Your task to perform on an android device: turn off smart reply in the gmail app Image 0: 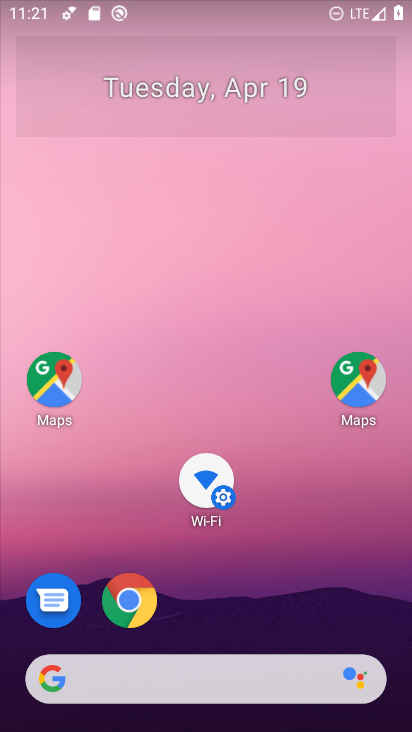
Step 0: drag from (292, 640) to (300, 72)
Your task to perform on an android device: turn off smart reply in the gmail app Image 1: 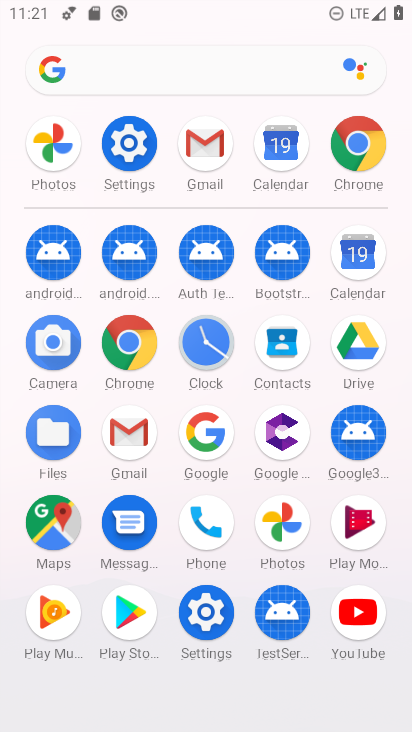
Step 1: click (113, 444)
Your task to perform on an android device: turn off smart reply in the gmail app Image 2: 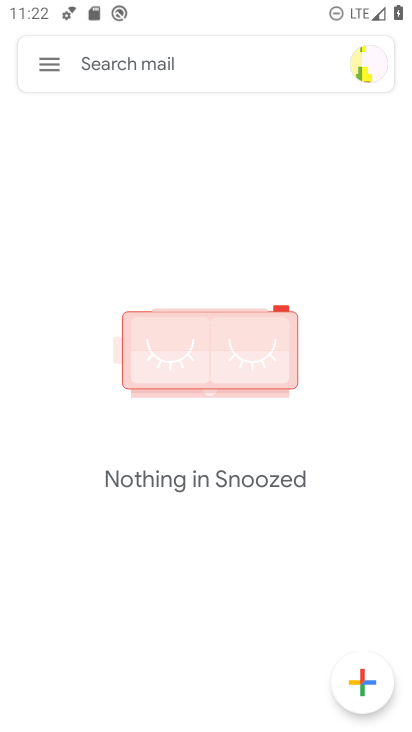
Step 2: click (52, 63)
Your task to perform on an android device: turn off smart reply in the gmail app Image 3: 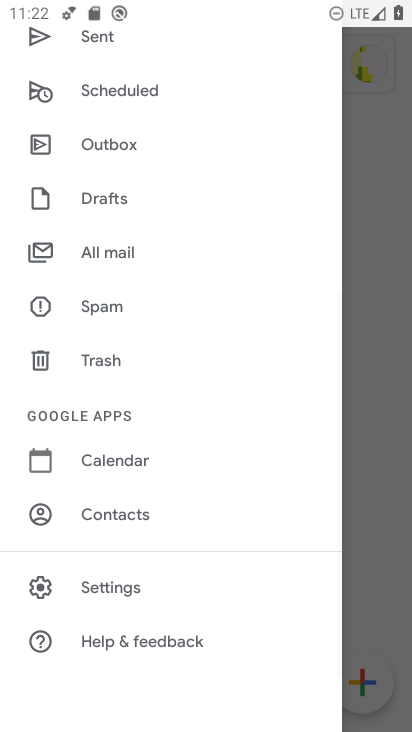
Step 3: click (144, 594)
Your task to perform on an android device: turn off smart reply in the gmail app Image 4: 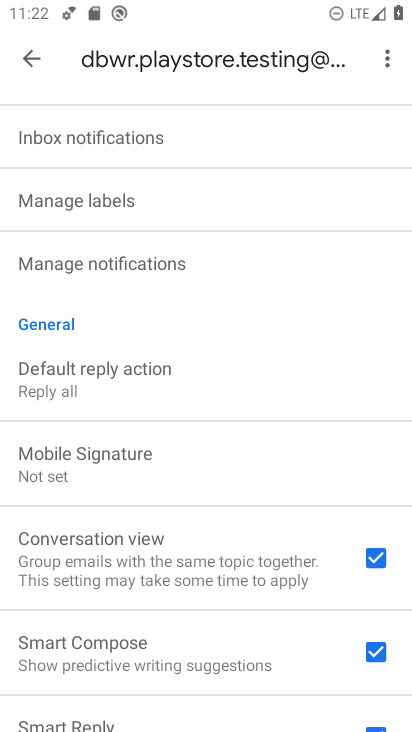
Step 4: drag from (164, 580) to (180, 188)
Your task to perform on an android device: turn off smart reply in the gmail app Image 5: 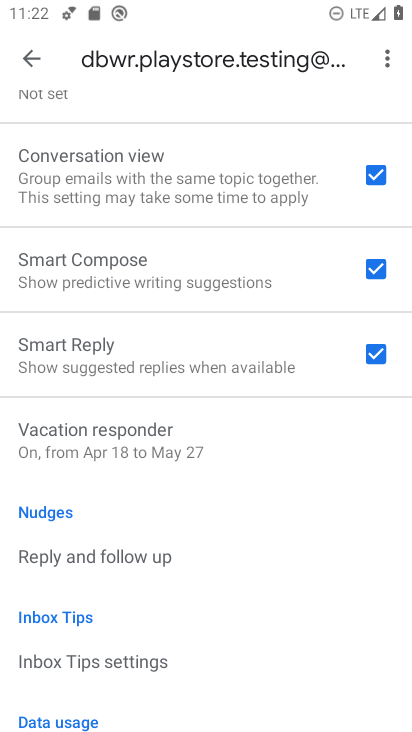
Step 5: click (364, 351)
Your task to perform on an android device: turn off smart reply in the gmail app Image 6: 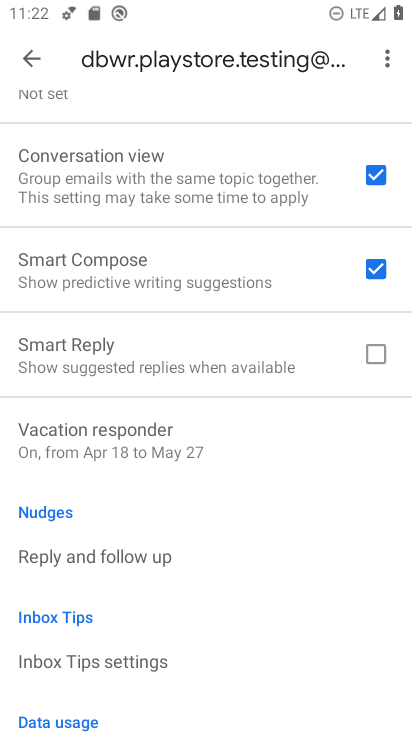
Step 6: task complete